Your task to perform on an android device: turn pop-ups off in chrome Image 0: 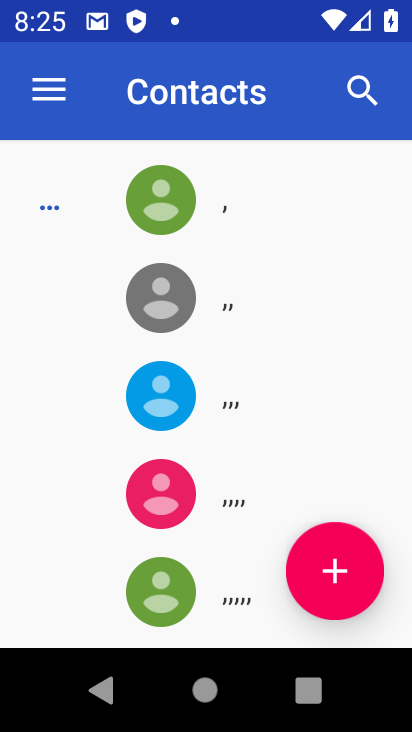
Step 0: press home button
Your task to perform on an android device: turn pop-ups off in chrome Image 1: 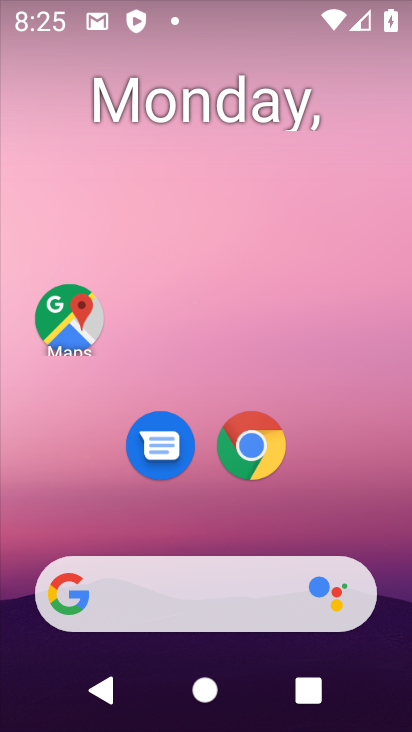
Step 1: click (259, 431)
Your task to perform on an android device: turn pop-ups off in chrome Image 2: 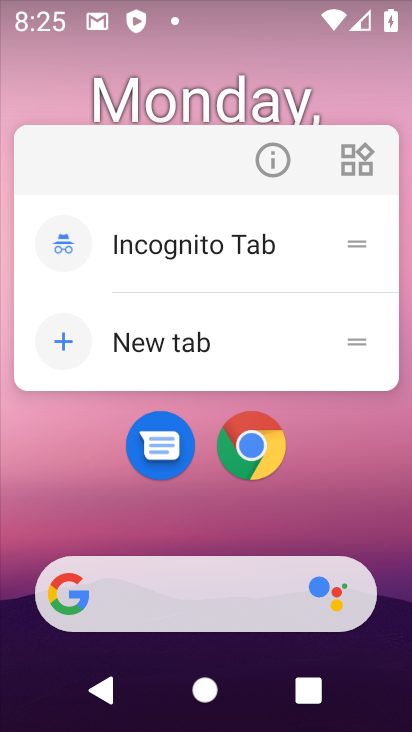
Step 2: click (269, 459)
Your task to perform on an android device: turn pop-ups off in chrome Image 3: 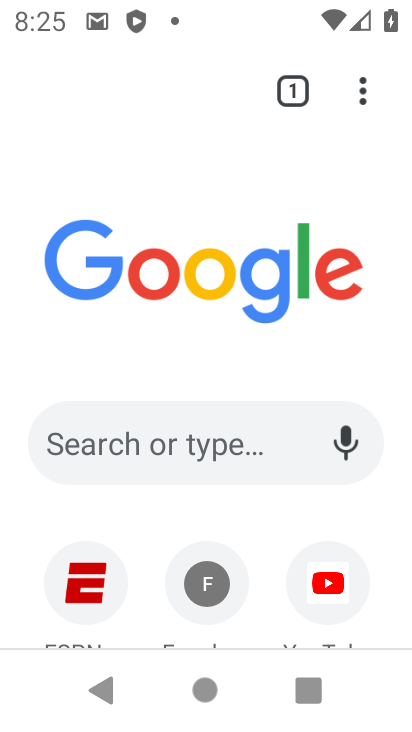
Step 3: click (358, 95)
Your task to perform on an android device: turn pop-ups off in chrome Image 4: 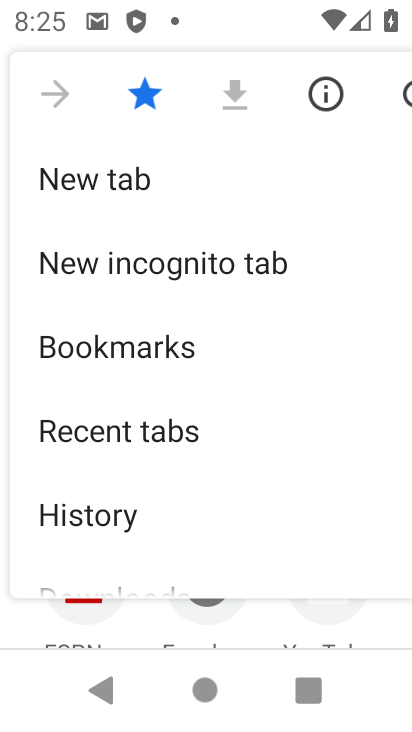
Step 4: drag from (302, 518) to (247, 2)
Your task to perform on an android device: turn pop-ups off in chrome Image 5: 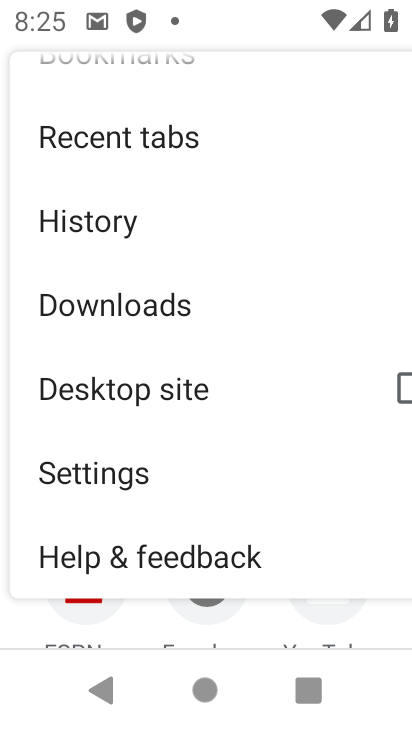
Step 5: click (145, 475)
Your task to perform on an android device: turn pop-ups off in chrome Image 6: 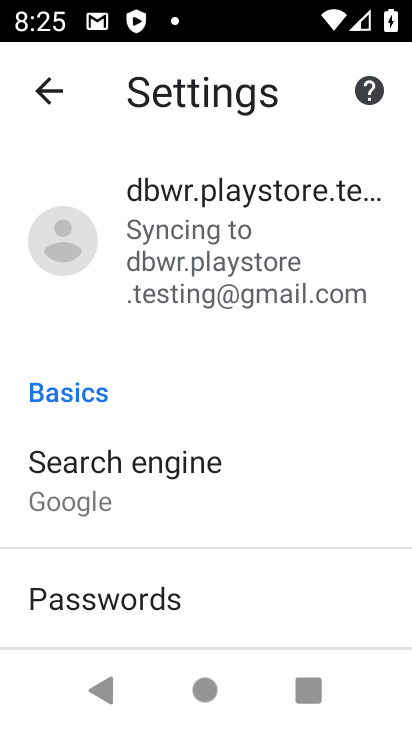
Step 6: drag from (262, 538) to (325, 28)
Your task to perform on an android device: turn pop-ups off in chrome Image 7: 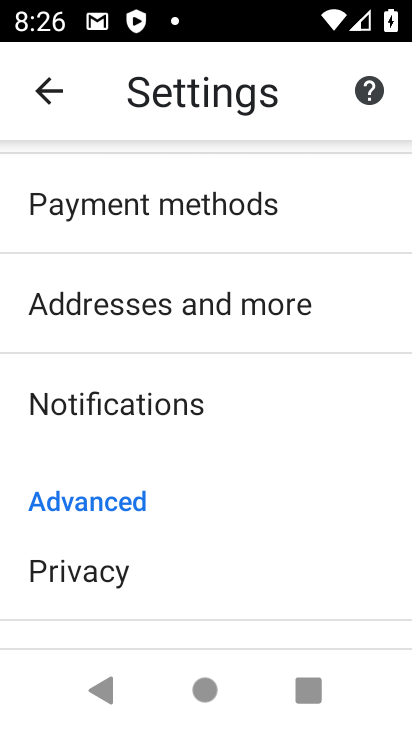
Step 7: drag from (330, 656) to (235, 153)
Your task to perform on an android device: turn pop-ups off in chrome Image 8: 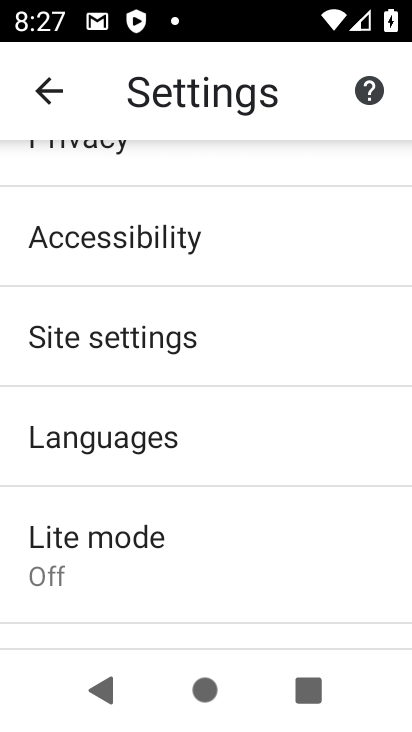
Step 8: click (230, 335)
Your task to perform on an android device: turn pop-ups off in chrome Image 9: 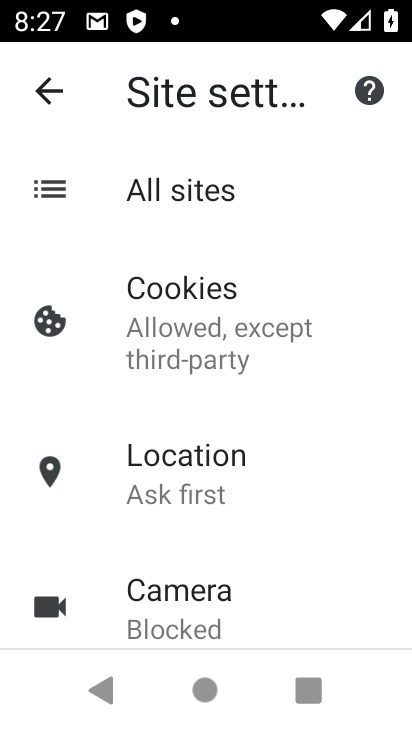
Step 9: drag from (98, 294) to (87, 23)
Your task to perform on an android device: turn pop-ups off in chrome Image 10: 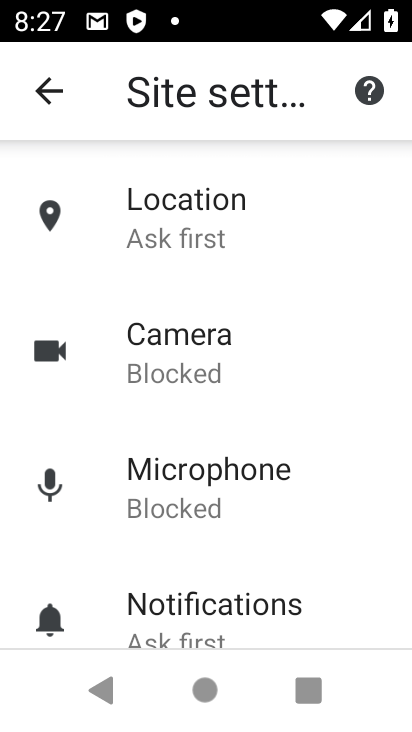
Step 10: drag from (296, 585) to (290, 91)
Your task to perform on an android device: turn pop-ups off in chrome Image 11: 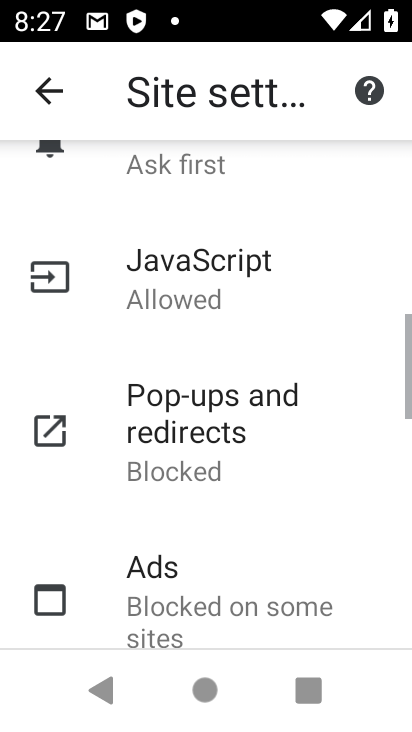
Step 11: click (234, 436)
Your task to perform on an android device: turn pop-ups off in chrome Image 12: 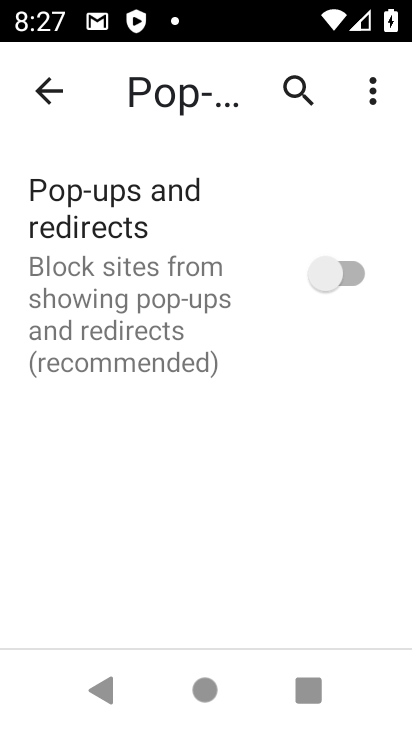
Step 12: task complete